Your task to perform on an android device: turn smart compose on in the gmail app Image 0: 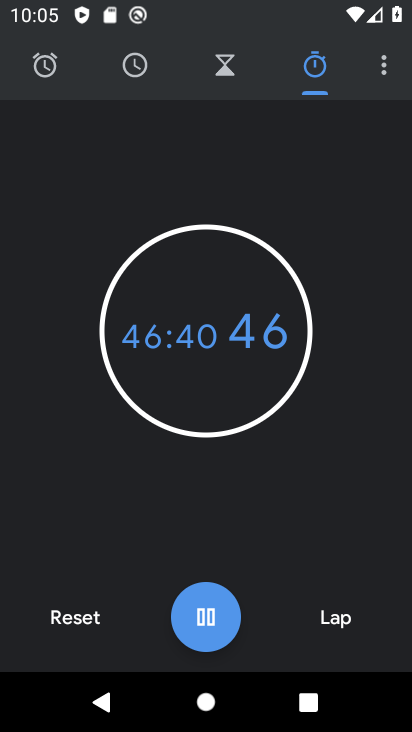
Step 0: press home button
Your task to perform on an android device: turn smart compose on in the gmail app Image 1: 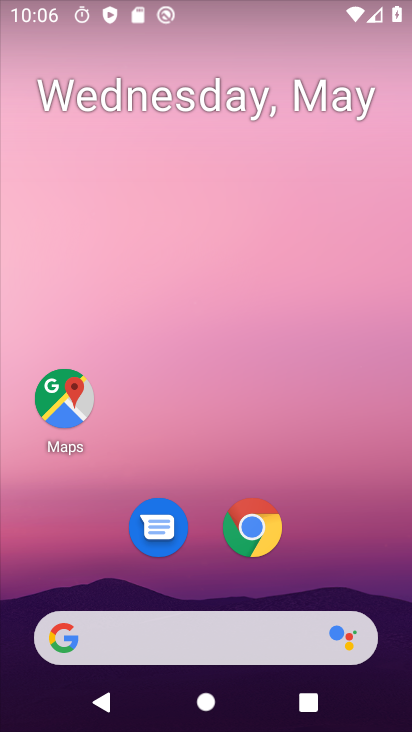
Step 1: drag from (371, 557) to (327, 98)
Your task to perform on an android device: turn smart compose on in the gmail app Image 2: 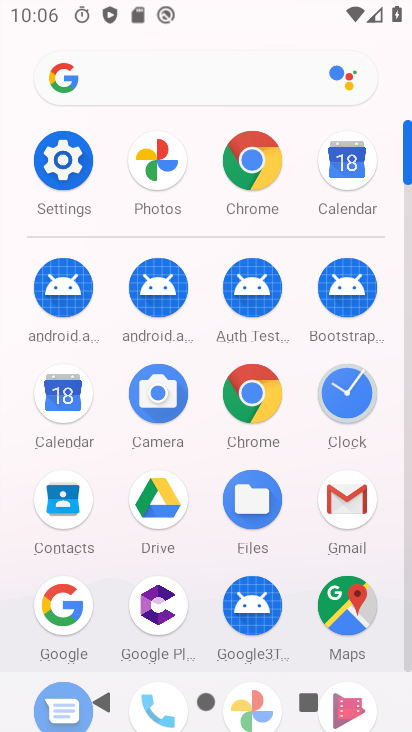
Step 2: click (409, 668)
Your task to perform on an android device: turn smart compose on in the gmail app Image 3: 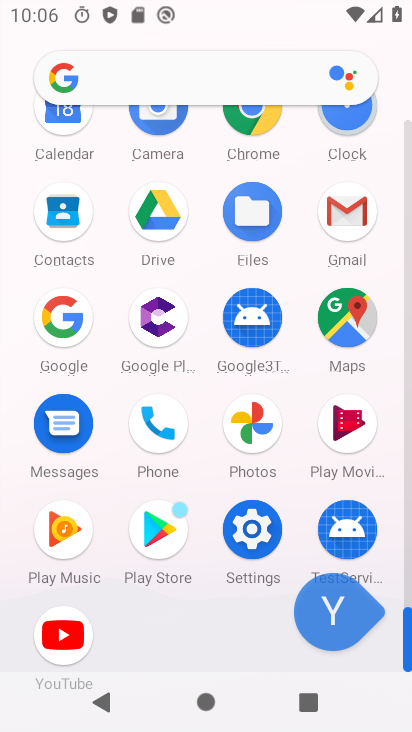
Step 3: click (409, 668)
Your task to perform on an android device: turn smart compose on in the gmail app Image 4: 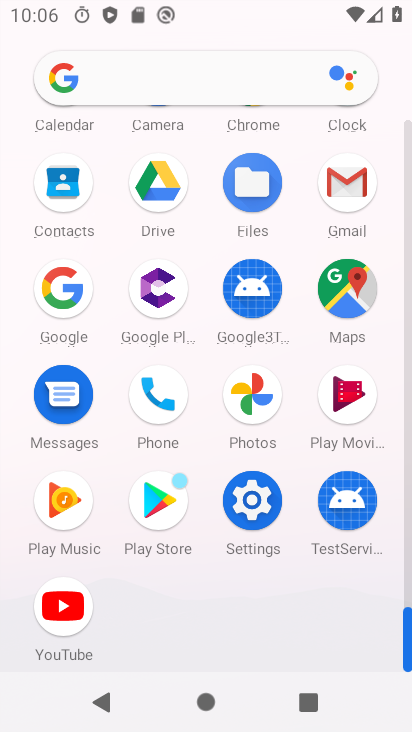
Step 4: click (409, 668)
Your task to perform on an android device: turn smart compose on in the gmail app Image 5: 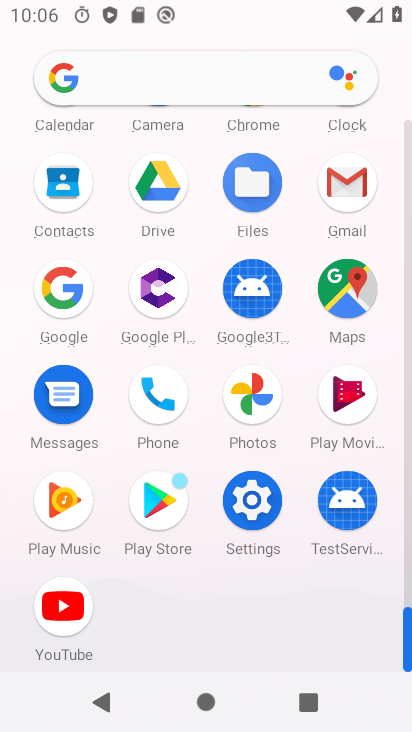
Step 5: click (409, 668)
Your task to perform on an android device: turn smart compose on in the gmail app Image 6: 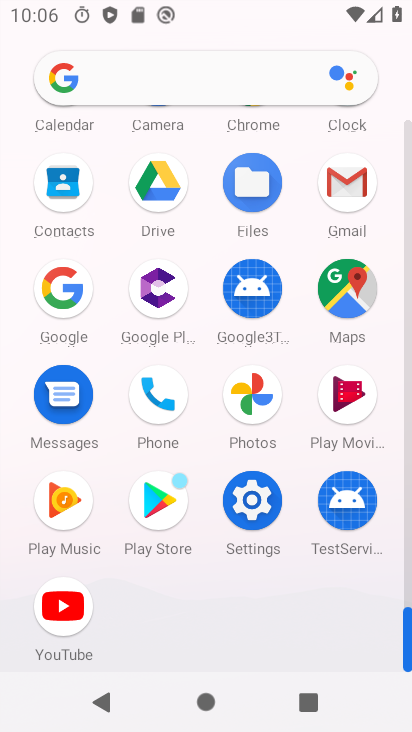
Step 6: click (409, 668)
Your task to perform on an android device: turn smart compose on in the gmail app Image 7: 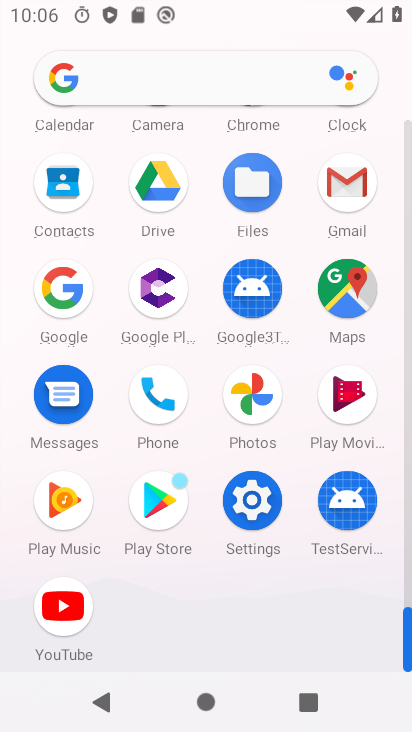
Step 7: click (409, 668)
Your task to perform on an android device: turn smart compose on in the gmail app Image 8: 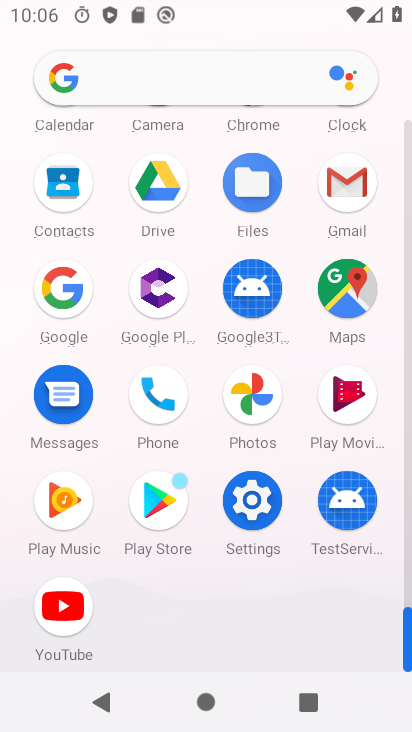
Step 8: click (405, 661)
Your task to perform on an android device: turn smart compose on in the gmail app Image 9: 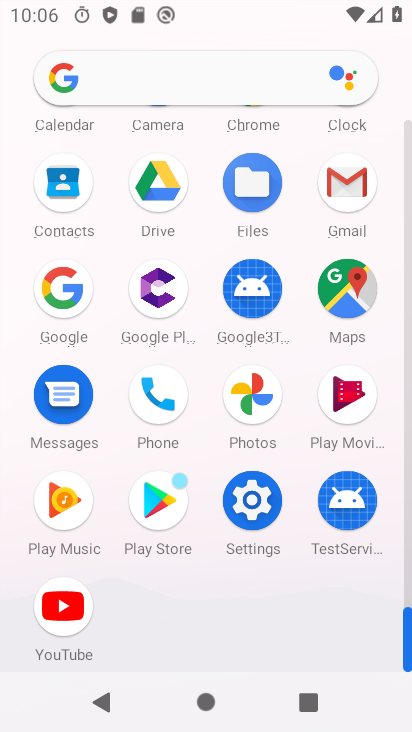
Step 9: drag from (406, 630) to (371, 409)
Your task to perform on an android device: turn smart compose on in the gmail app Image 10: 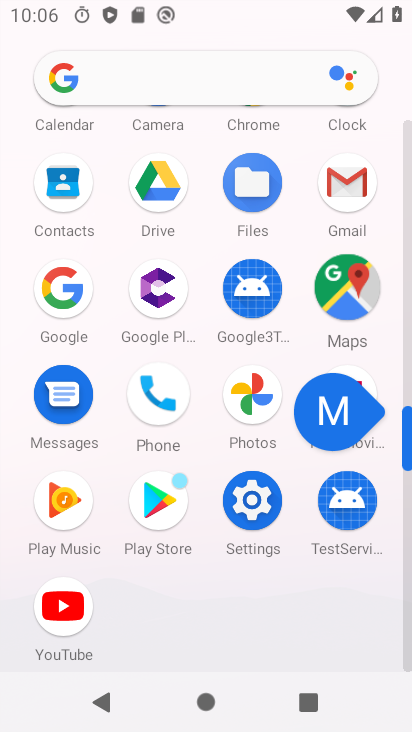
Step 10: click (371, 409)
Your task to perform on an android device: turn smart compose on in the gmail app Image 11: 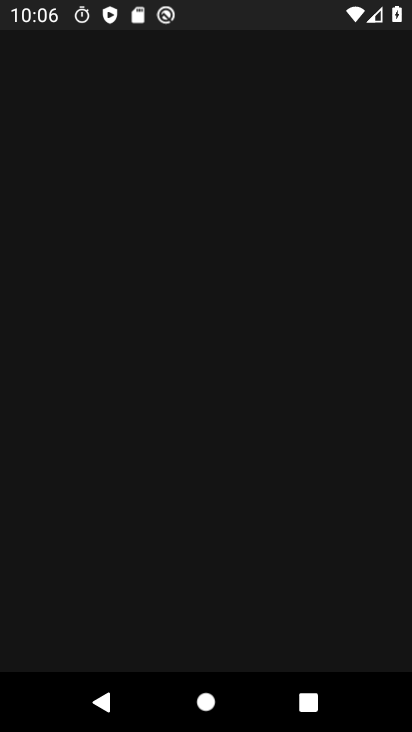
Step 11: click (378, 482)
Your task to perform on an android device: turn smart compose on in the gmail app Image 12: 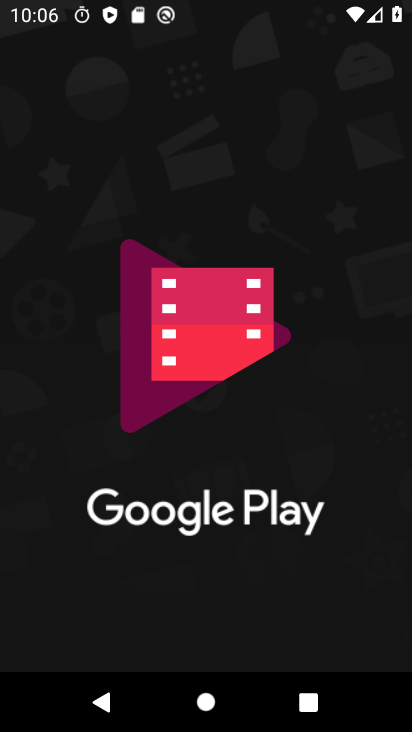
Step 12: press home button
Your task to perform on an android device: turn smart compose on in the gmail app Image 13: 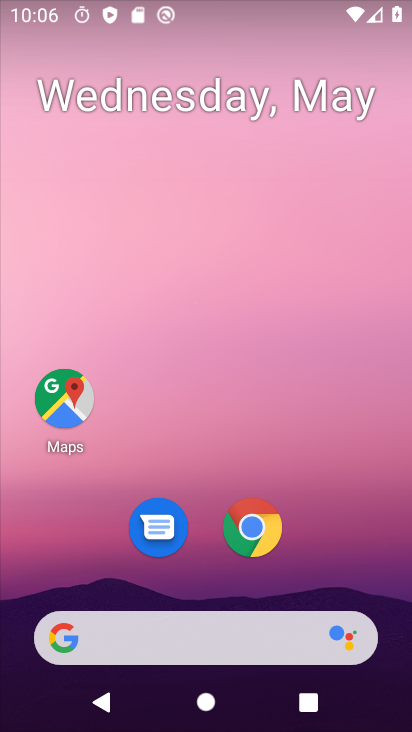
Step 13: drag from (377, 559) to (371, 290)
Your task to perform on an android device: turn smart compose on in the gmail app Image 14: 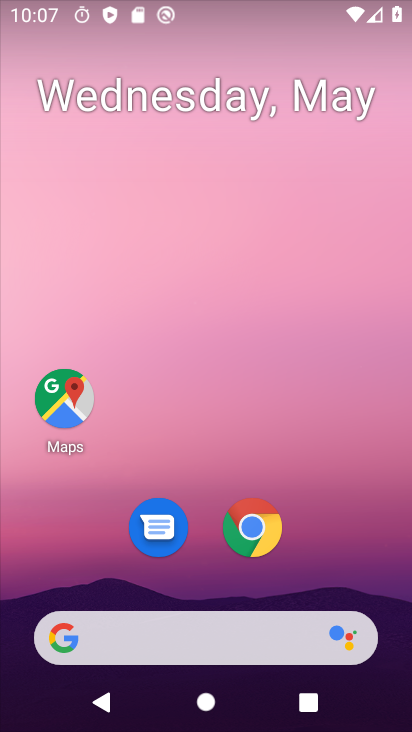
Step 14: drag from (385, 617) to (246, 240)
Your task to perform on an android device: turn smart compose on in the gmail app Image 15: 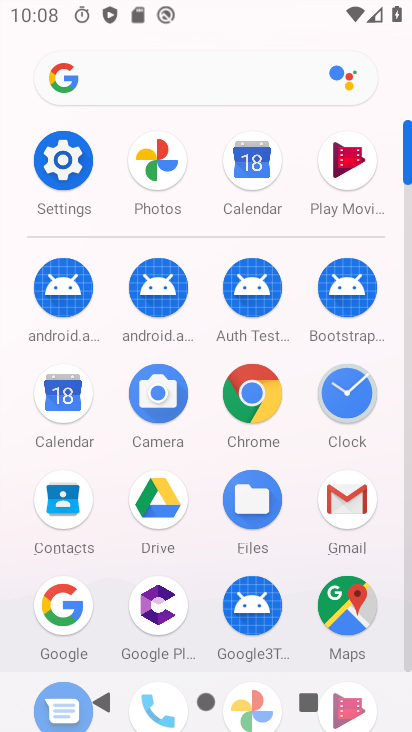
Step 15: click (325, 508)
Your task to perform on an android device: turn smart compose on in the gmail app Image 16: 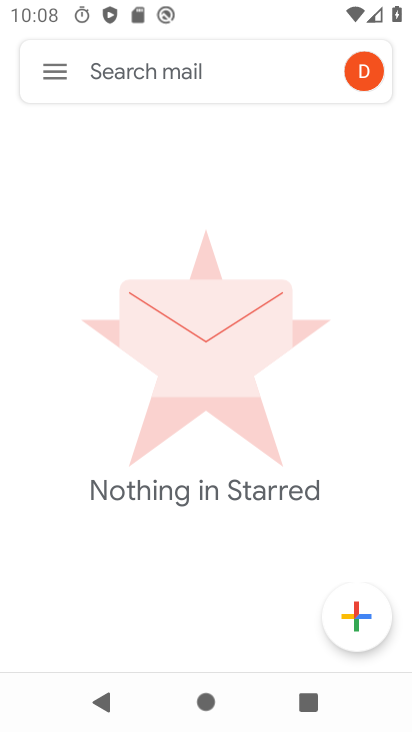
Step 16: drag from (47, 64) to (303, 136)
Your task to perform on an android device: turn smart compose on in the gmail app Image 17: 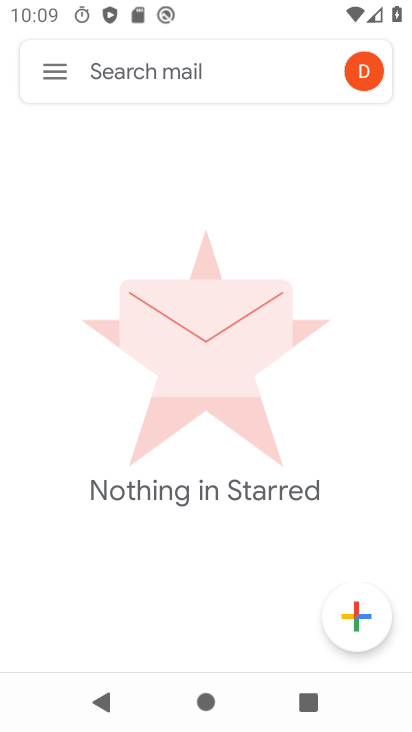
Step 17: click (58, 69)
Your task to perform on an android device: turn smart compose on in the gmail app Image 18: 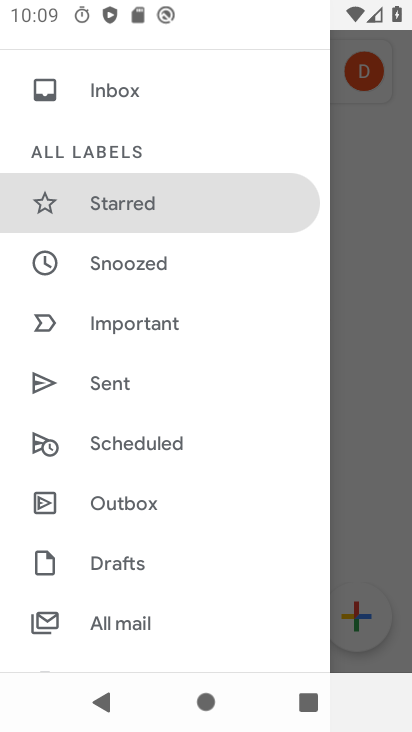
Step 18: drag from (111, 577) to (128, 274)
Your task to perform on an android device: turn smart compose on in the gmail app Image 19: 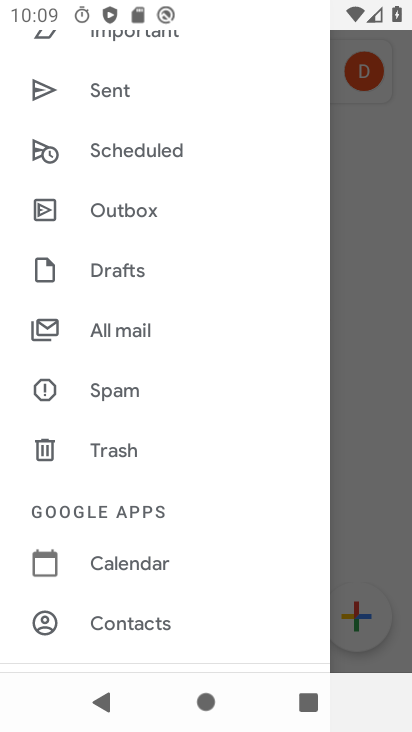
Step 19: drag from (111, 593) to (170, 158)
Your task to perform on an android device: turn smart compose on in the gmail app Image 20: 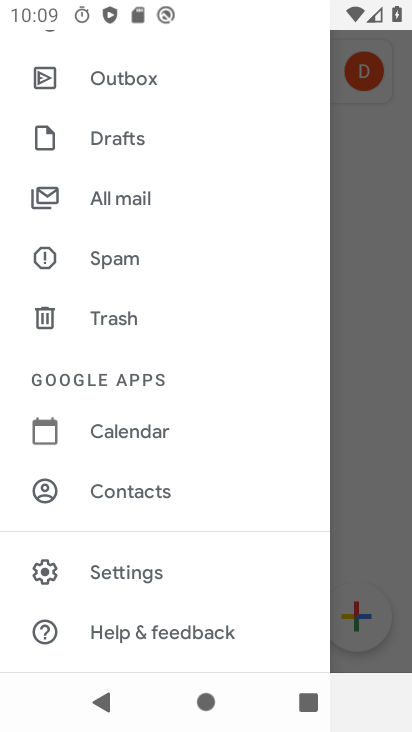
Step 20: click (135, 581)
Your task to perform on an android device: turn smart compose on in the gmail app Image 21: 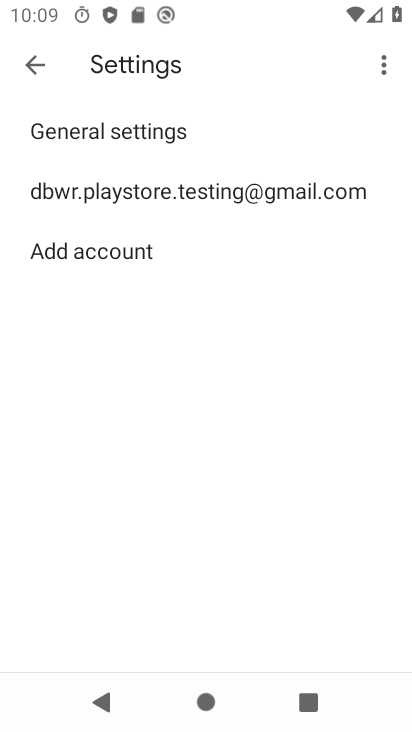
Step 21: click (148, 198)
Your task to perform on an android device: turn smart compose on in the gmail app Image 22: 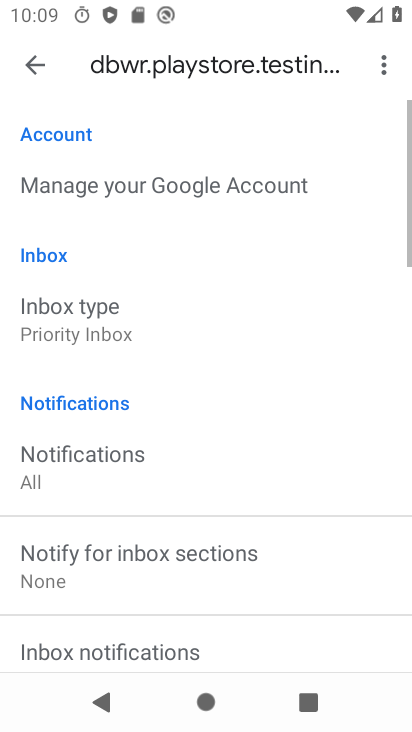
Step 22: task complete